Your task to perform on an android device: Go to privacy settings Image 0: 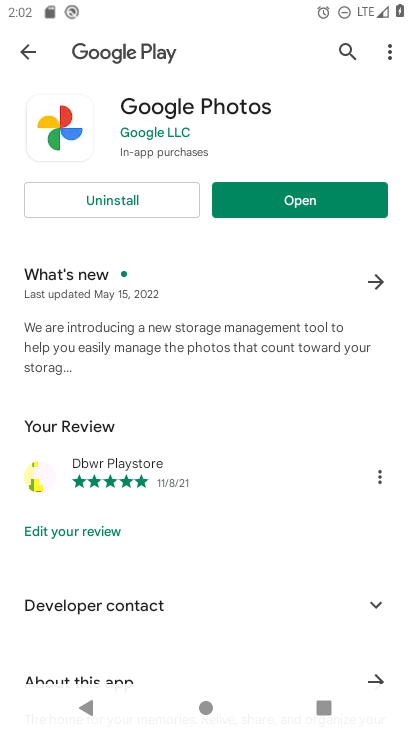
Step 0: press home button
Your task to perform on an android device: Go to privacy settings Image 1: 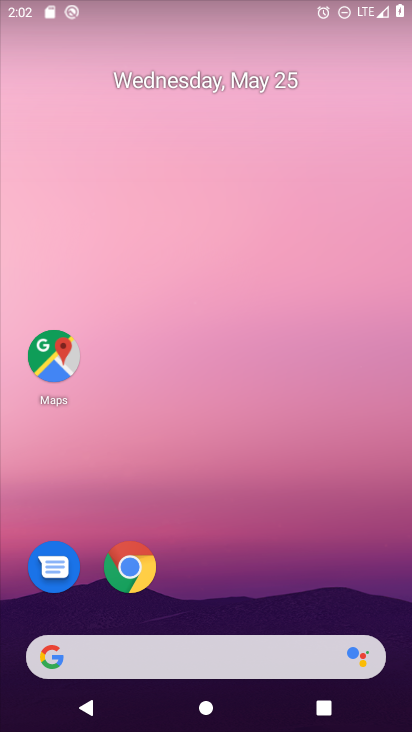
Step 1: click (137, 567)
Your task to perform on an android device: Go to privacy settings Image 2: 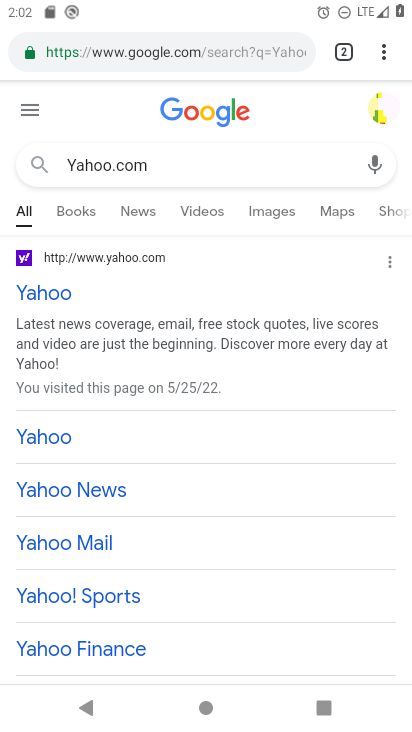
Step 2: click (378, 53)
Your task to perform on an android device: Go to privacy settings Image 3: 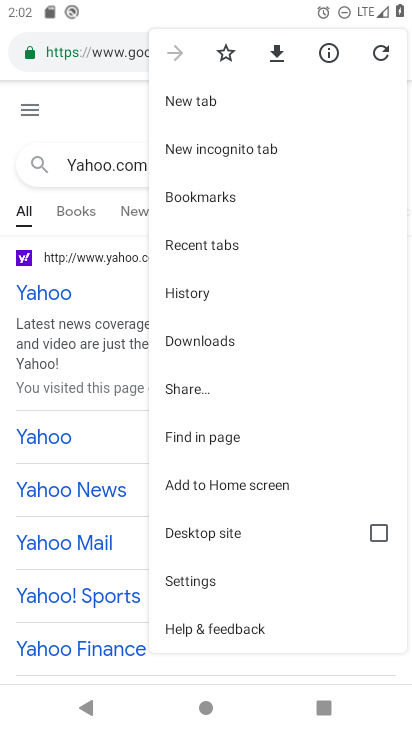
Step 3: click (163, 575)
Your task to perform on an android device: Go to privacy settings Image 4: 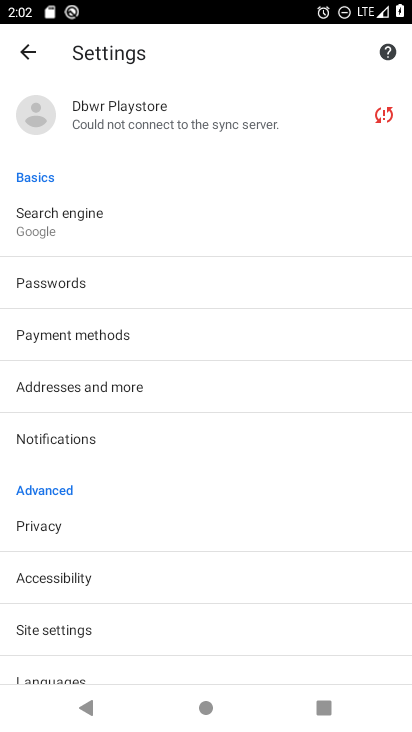
Step 4: click (41, 529)
Your task to perform on an android device: Go to privacy settings Image 5: 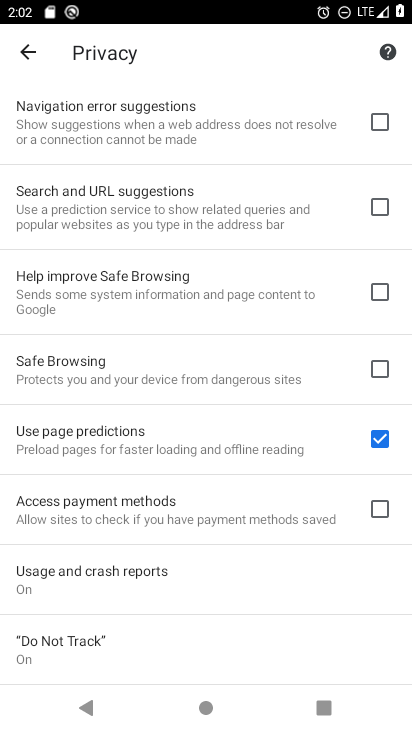
Step 5: task complete